Your task to perform on an android device: open chrome privacy settings Image 0: 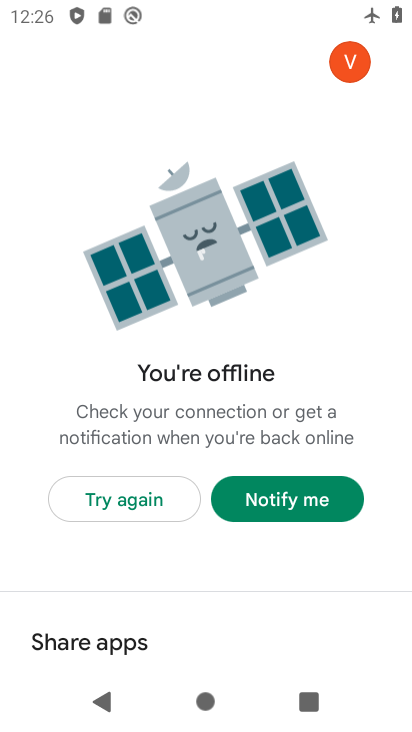
Step 0: press home button
Your task to perform on an android device: open chrome privacy settings Image 1: 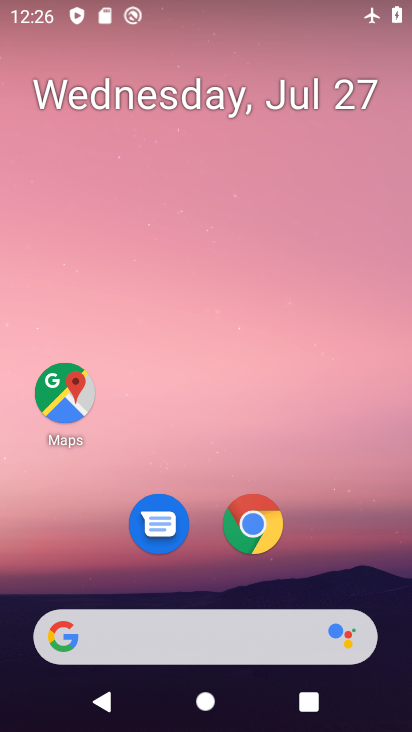
Step 1: click (263, 527)
Your task to perform on an android device: open chrome privacy settings Image 2: 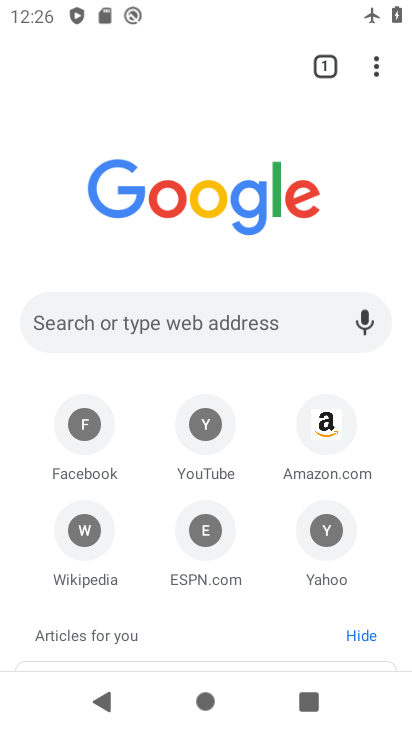
Step 2: click (377, 67)
Your task to perform on an android device: open chrome privacy settings Image 3: 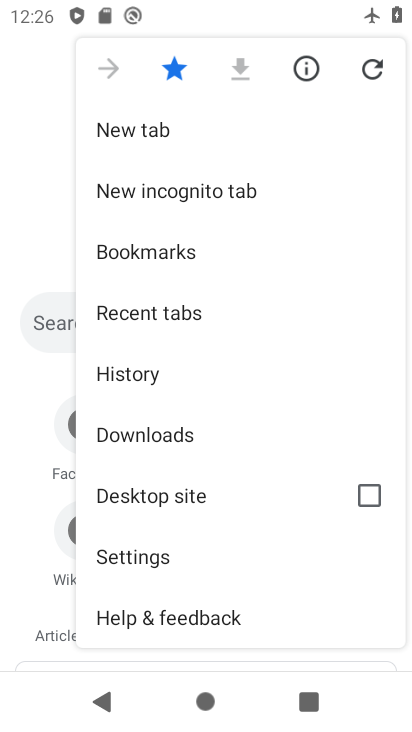
Step 3: click (154, 553)
Your task to perform on an android device: open chrome privacy settings Image 4: 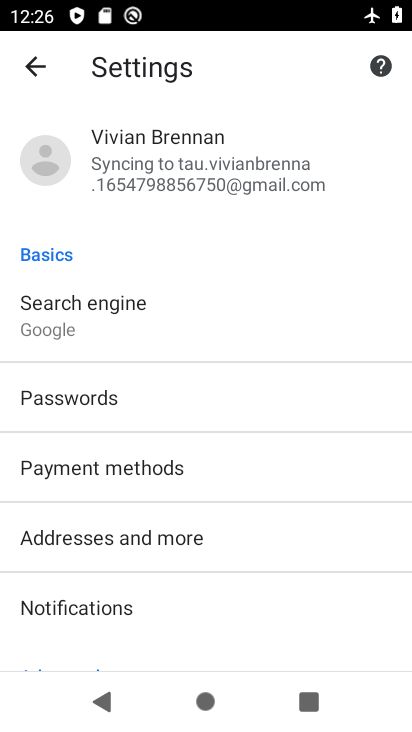
Step 4: drag from (210, 589) to (255, 296)
Your task to perform on an android device: open chrome privacy settings Image 5: 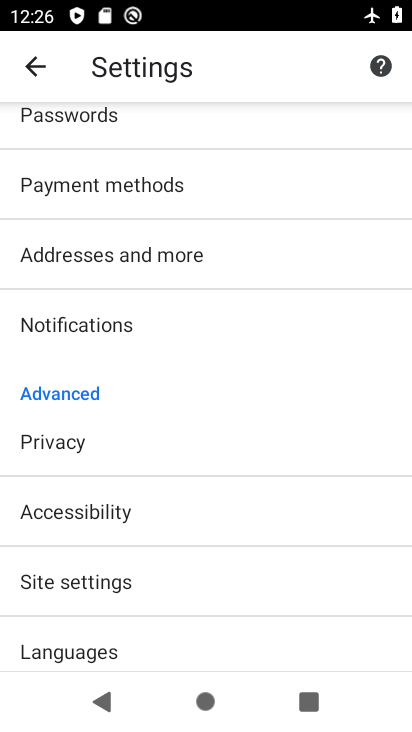
Step 5: click (70, 446)
Your task to perform on an android device: open chrome privacy settings Image 6: 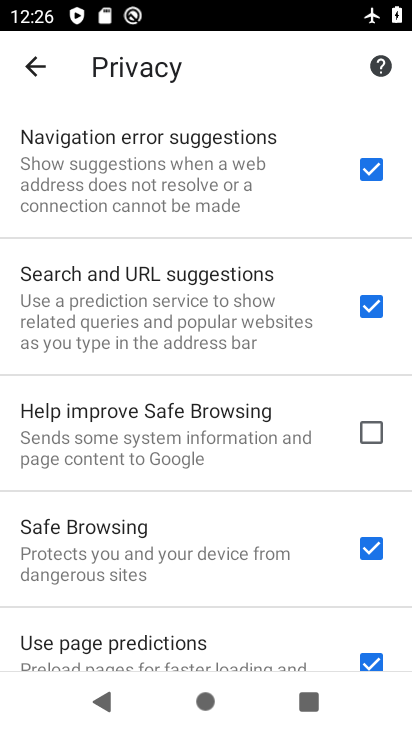
Step 6: task complete